Your task to perform on an android device: snooze an email in the gmail app Image 0: 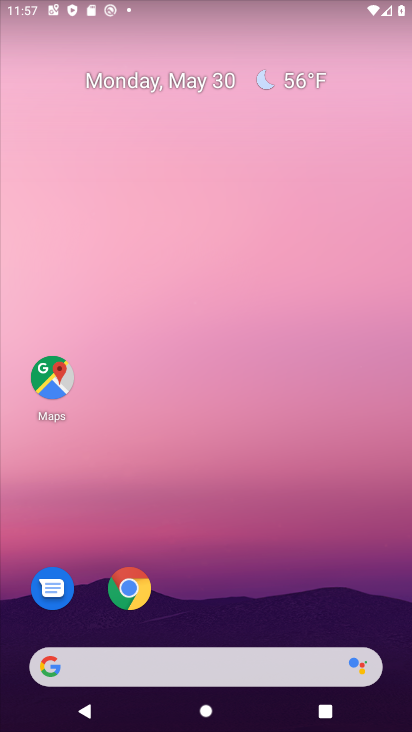
Step 0: drag from (207, 607) to (237, 181)
Your task to perform on an android device: snooze an email in the gmail app Image 1: 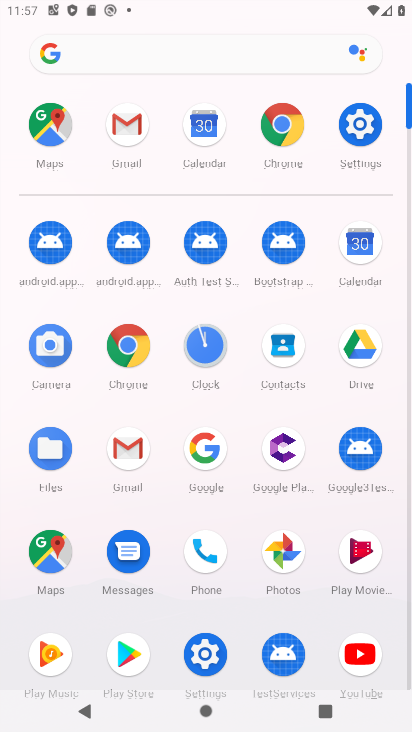
Step 1: click (123, 462)
Your task to perform on an android device: snooze an email in the gmail app Image 2: 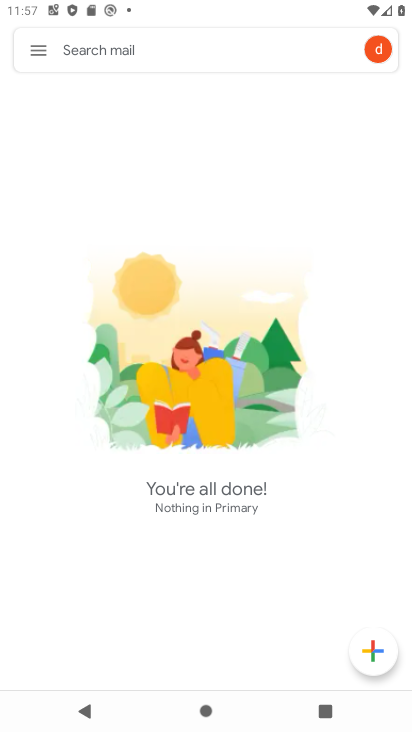
Step 2: task complete